Your task to perform on an android device: find snoozed emails in the gmail app Image 0: 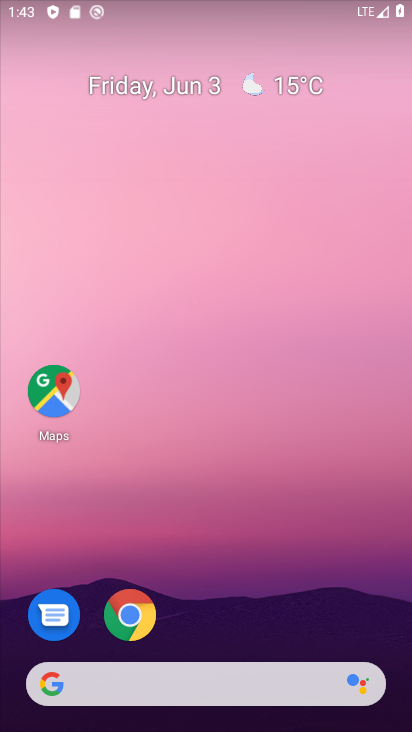
Step 0: click (153, 7)
Your task to perform on an android device: find snoozed emails in the gmail app Image 1: 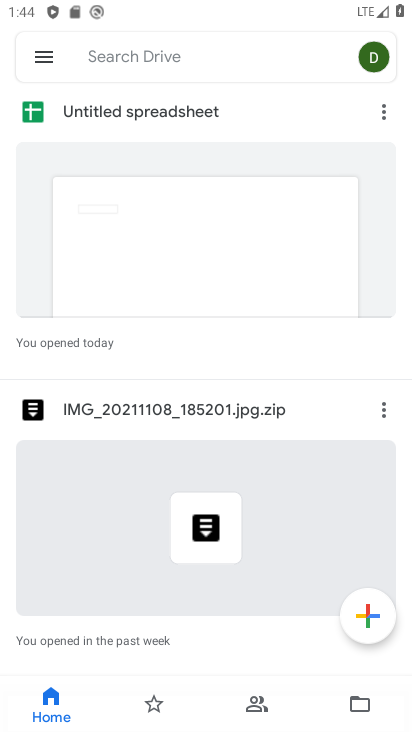
Step 1: drag from (261, 551) to (304, 183)
Your task to perform on an android device: find snoozed emails in the gmail app Image 2: 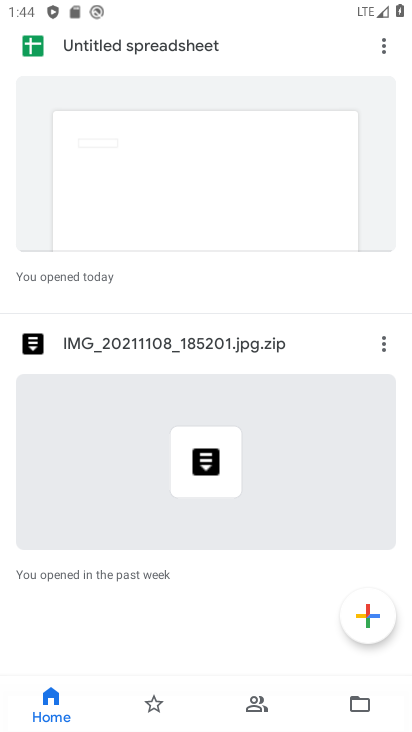
Step 2: press home button
Your task to perform on an android device: find snoozed emails in the gmail app Image 3: 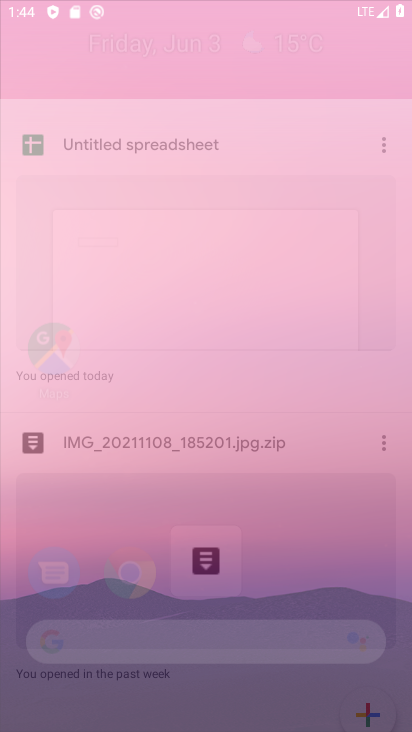
Step 3: drag from (178, 605) to (248, 112)
Your task to perform on an android device: find snoozed emails in the gmail app Image 4: 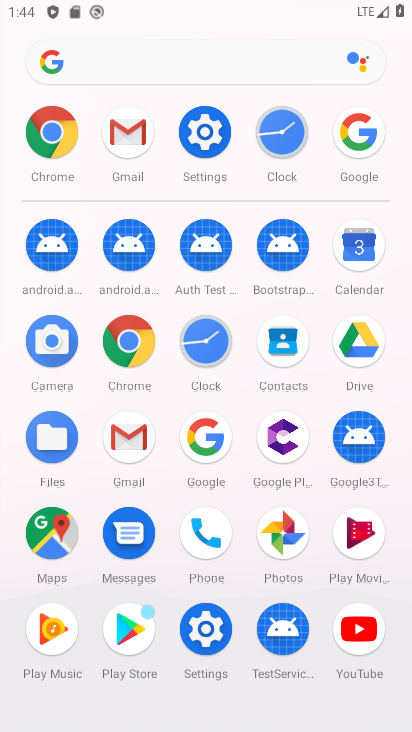
Step 4: click (131, 447)
Your task to perform on an android device: find snoozed emails in the gmail app Image 5: 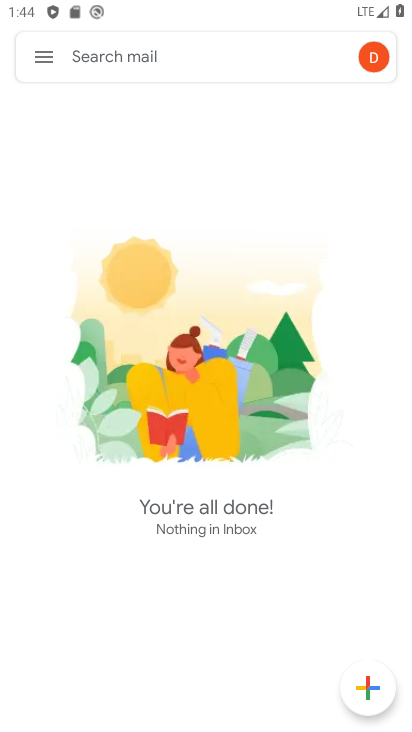
Step 5: click (47, 60)
Your task to perform on an android device: find snoozed emails in the gmail app Image 6: 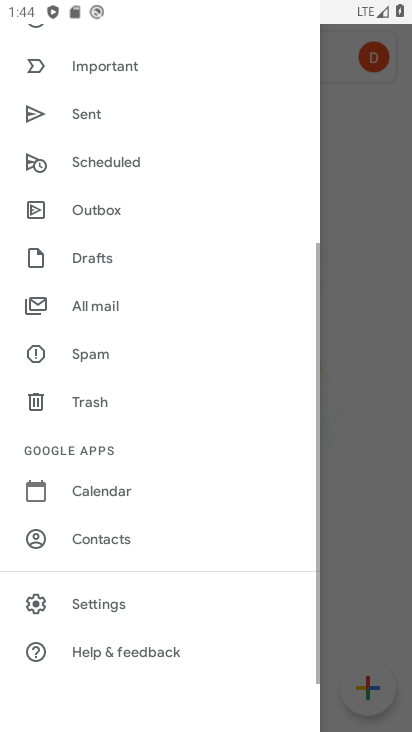
Step 6: drag from (153, 198) to (238, 722)
Your task to perform on an android device: find snoozed emails in the gmail app Image 7: 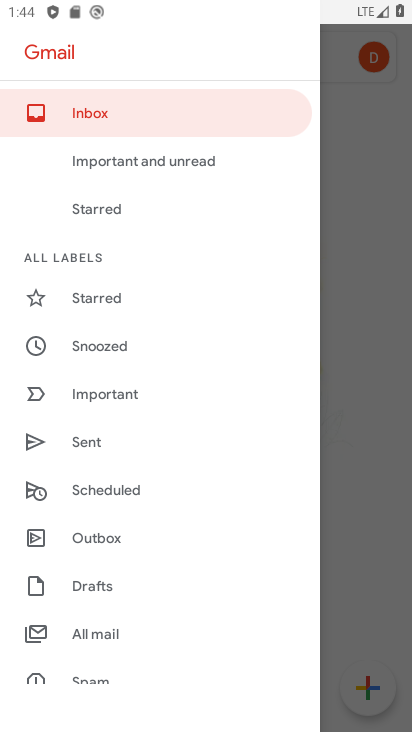
Step 7: click (152, 348)
Your task to perform on an android device: find snoozed emails in the gmail app Image 8: 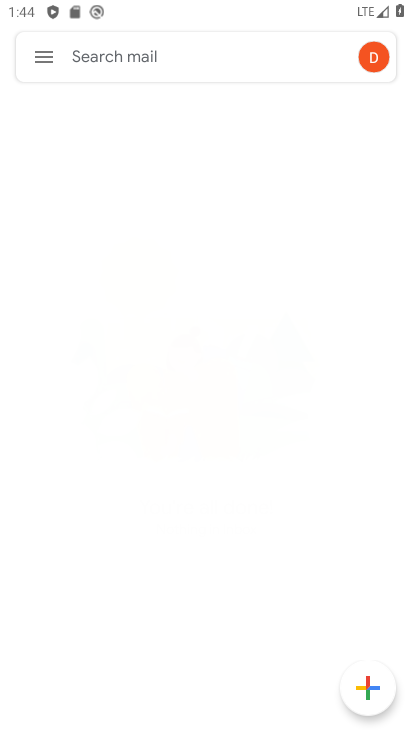
Step 8: task complete